Your task to perform on an android device: change your default location settings in chrome Image 0: 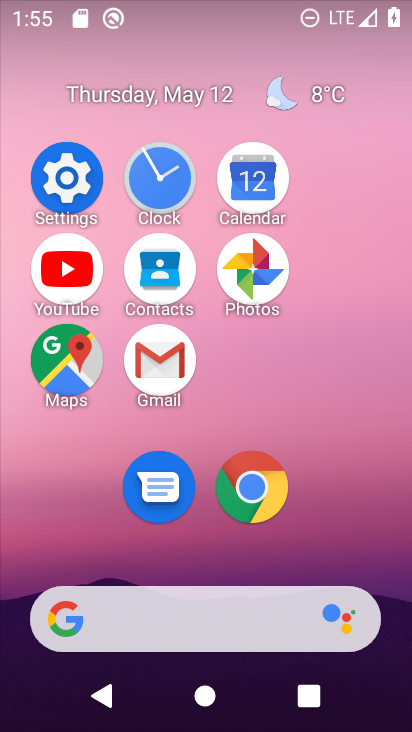
Step 0: click (248, 482)
Your task to perform on an android device: change your default location settings in chrome Image 1: 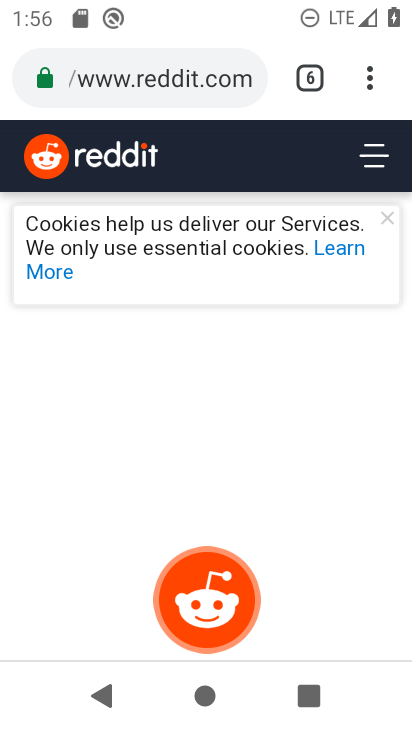
Step 1: click (372, 83)
Your task to perform on an android device: change your default location settings in chrome Image 2: 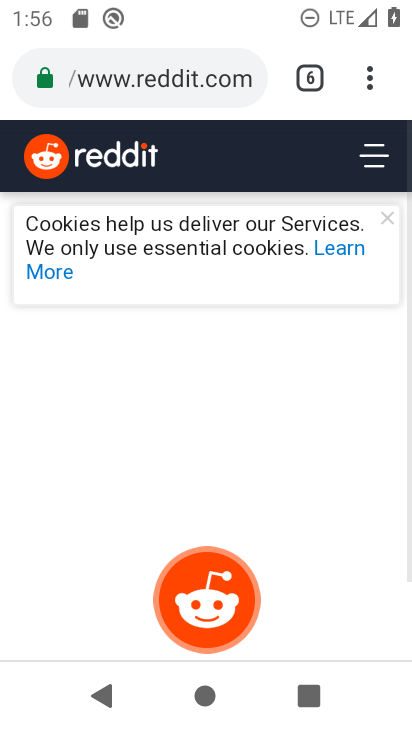
Step 2: click (360, 94)
Your task to perform on an android device: change your default location settings in chrome Image 3: 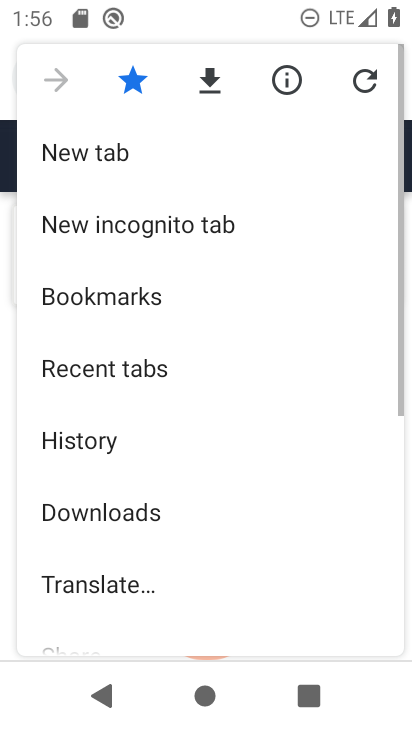
Step 3: drag from (254, 542) to (314, 177)
Your task to perform on an android device: change your default location settings in chrome Image 4: 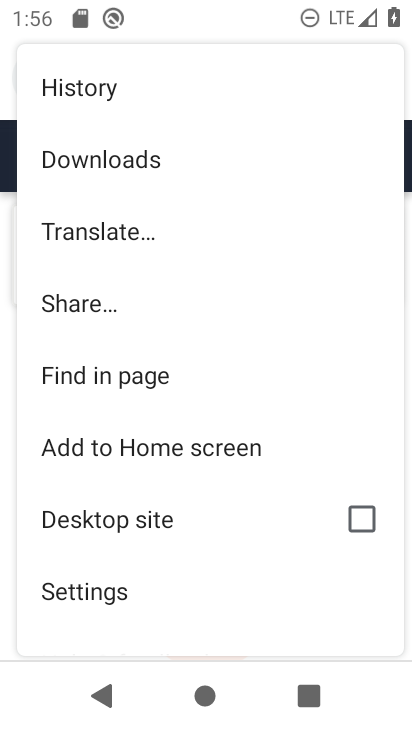
Step 4: click (148, 582)
Your task to perform on an android device: change your default location settings in chrome Image 5: 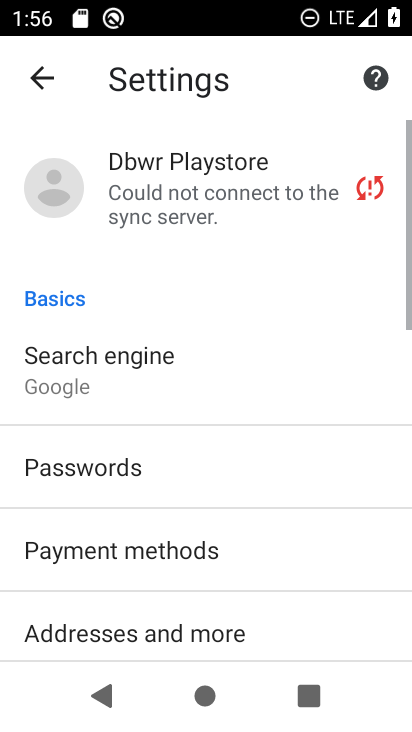
Step 5: drag from (238, 594) to (321, 163)
Your task to perform on an android device: change your default location settings in chrome Image 6: 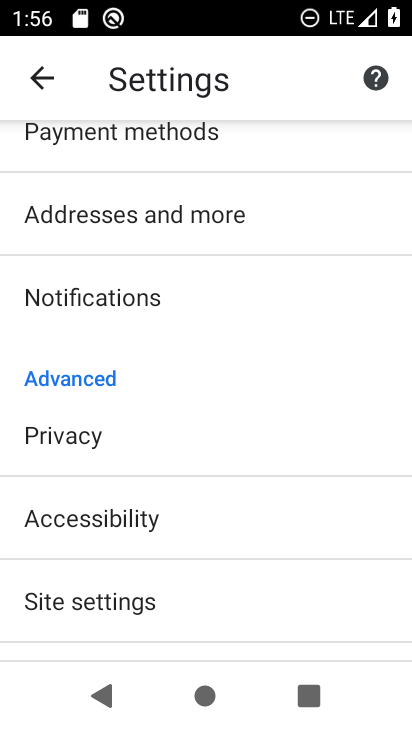
Step 6: drag from (264, 575) to (311, 219)
Your task to perform on an android device: change your default location settings in chrome Image 7: 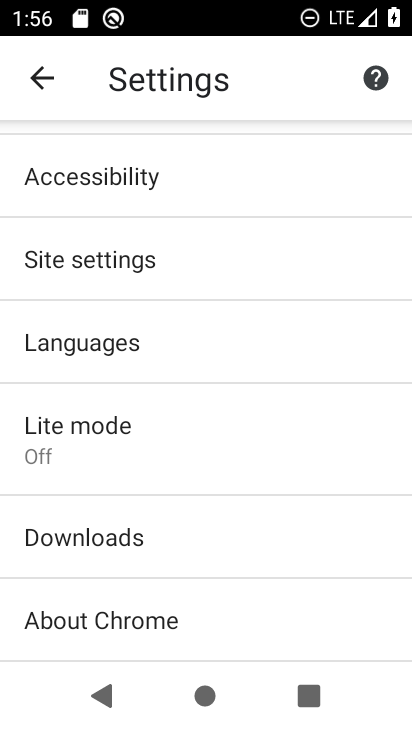
Step 7: click (196, 270)
Your task to perform on an android device: change your default location settings in chrome Image 8: 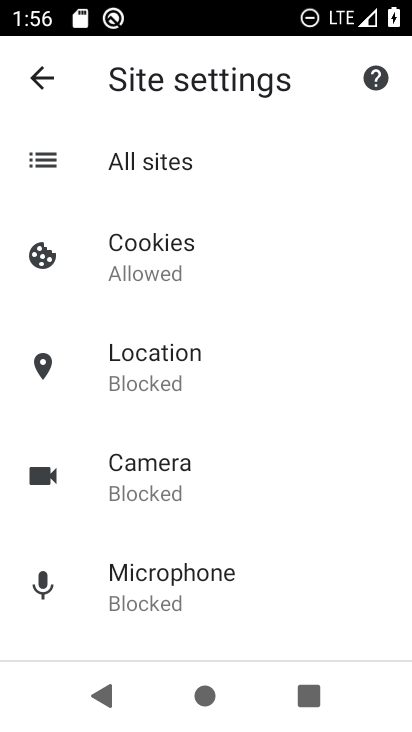
Step 8: click (216, 380)
Your task to perform on an android device: change your default location settings in chrome Image 9: 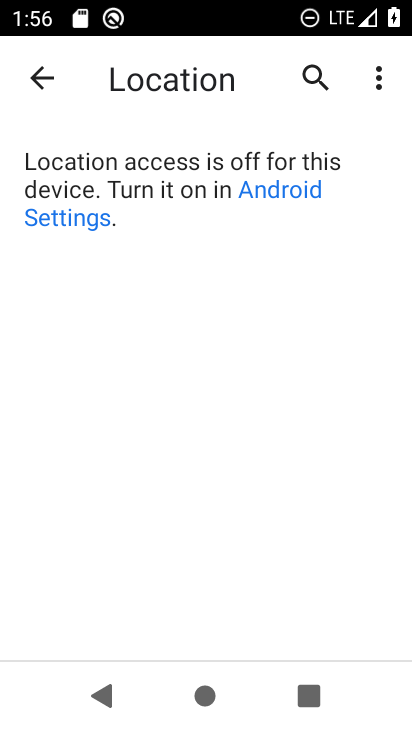
Step 9: click (94, 222)
Your task to perform on an android device: change your default location settings in chrome Image 10: 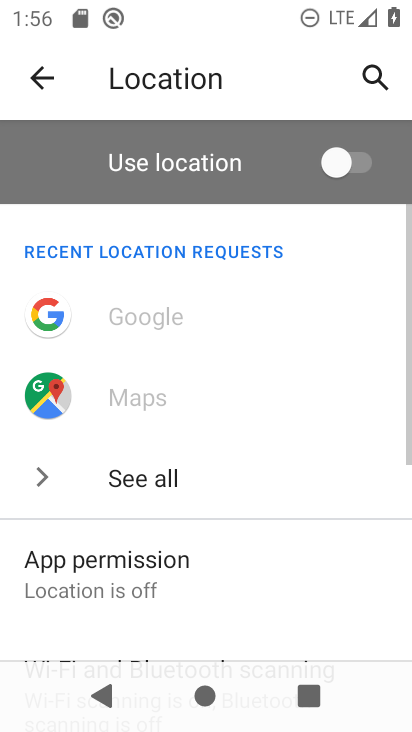
Step 10: click (344, 171)
Your task to perform on an android device: change your default location settings in chrome Image 11: 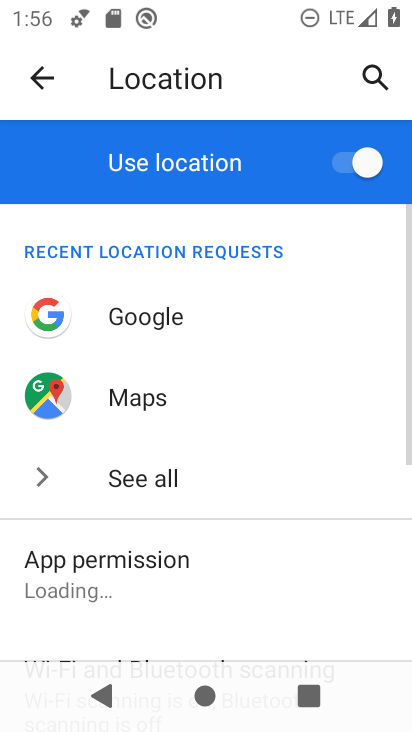
Step 11: task complete